Your task to perform on an android device: move a message to another label in the gmail app Image 0: 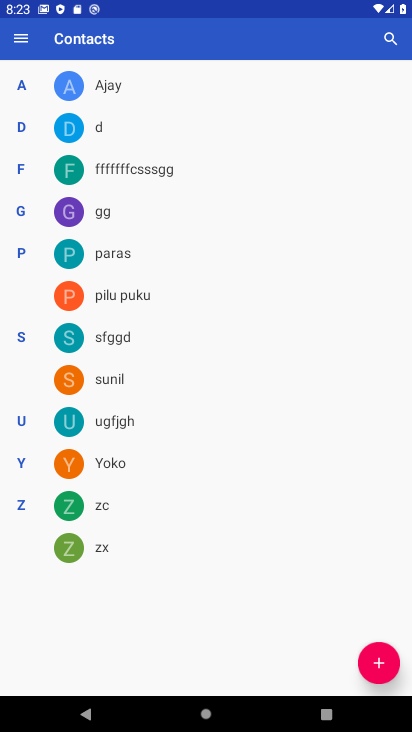
Step 0: press home button
Your task to perform on an android device: move a message to another label in the gmail app Image 1: 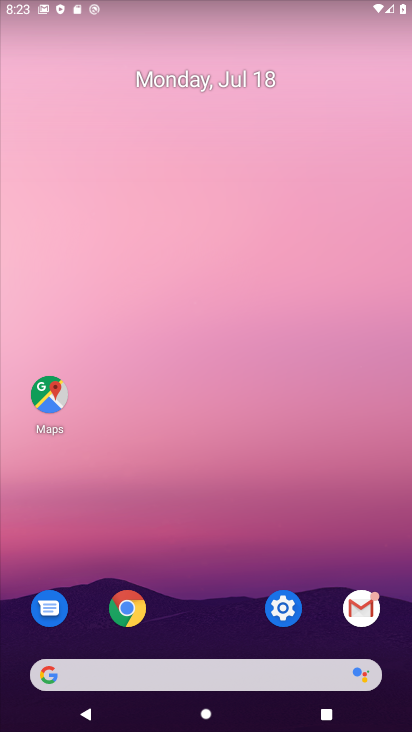
Step 1: click (359, 616)
Your task to perform on an android device: move a message to another label in the gmail app Image 2: 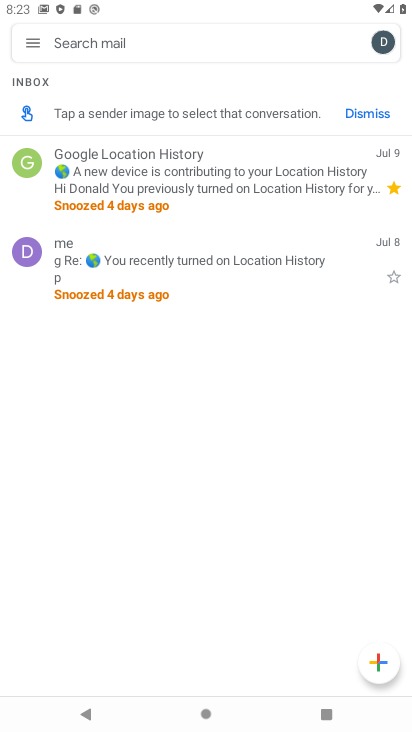
Step 2: click (27, 45)
Your task to perform on an android device: move a message to another label in the gmail app Image 3: 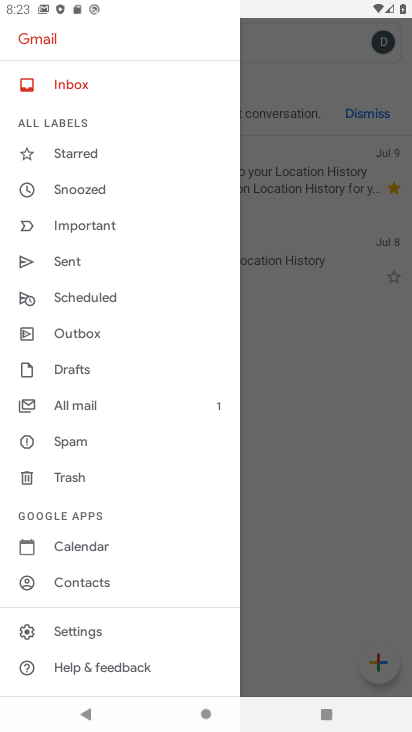
Step 3: click (99, 636)
Your task to perform on an android device: move a message to another label in the gmail app Image 4: 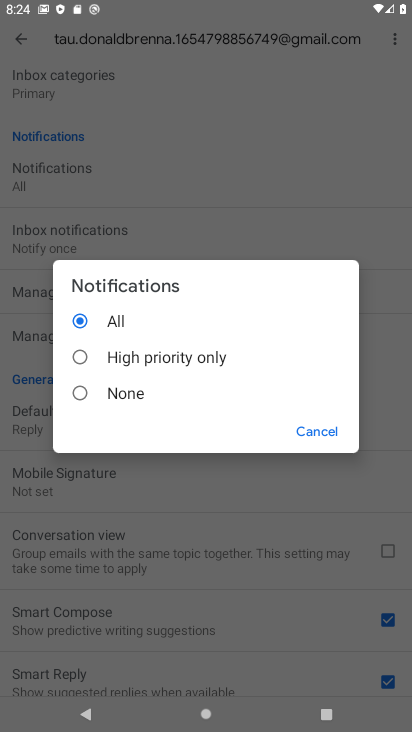
Step 4: task complete